Your task to perform on an android device: Open calendar and show me the second week of next month Image 0: 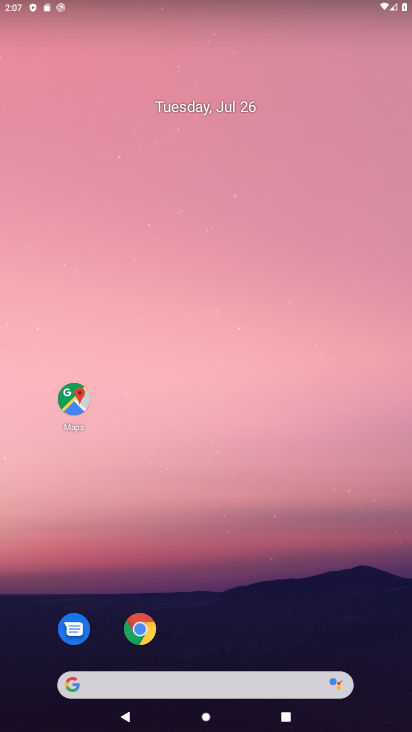
Step 0: drag from (291, 645) to (299, 193)
Your task to perform on an android device: Open calendar and show me the second week of next month Image 1: 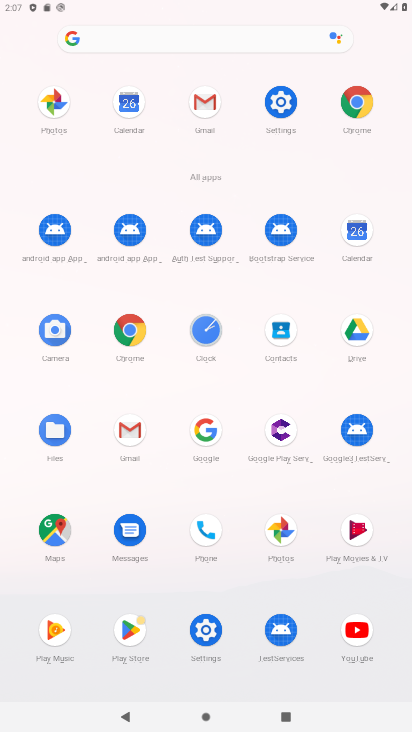
Step 1: click (357, 231)
Your task to perform on an android device: Open calendar and show me the second week of next month Image 2: 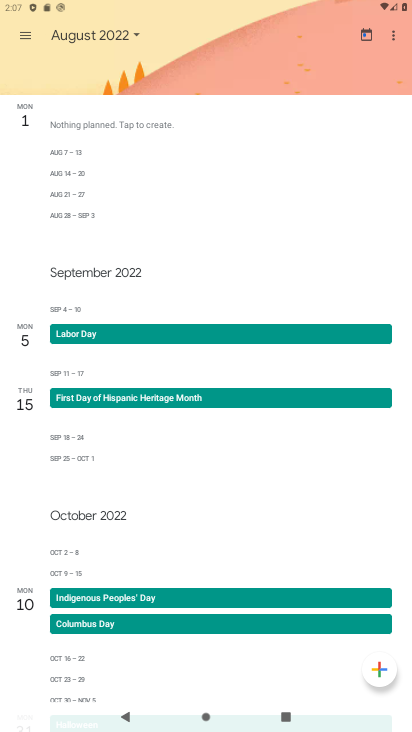
Step 2: click (113, 40)
Your task to perform on an android device: Open calendar and show me the second week of next month Image 3: 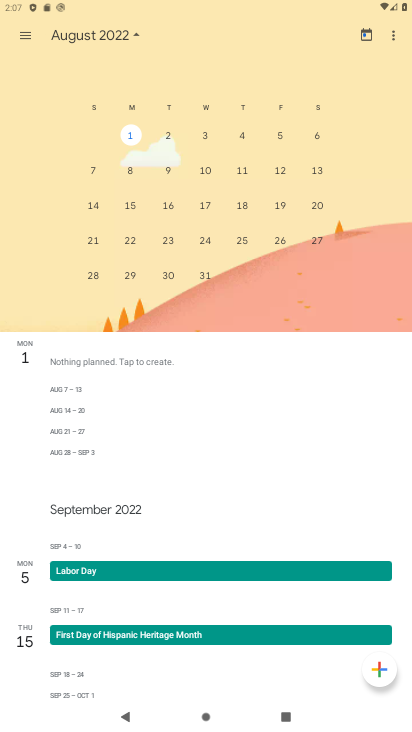
Step 3: click (97, 167)
Your task to perform on an android device: Open calendar and show me the second week of next month Image 4: 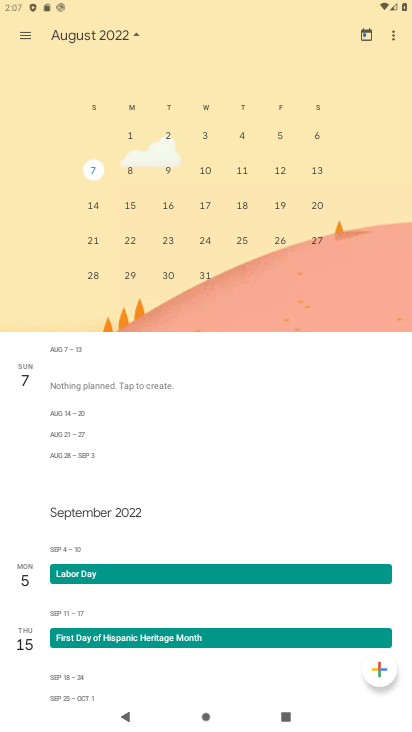
Step 4: task complete